Your task to perform on an android device: Empty the shopping cart on target.com. Image 0: 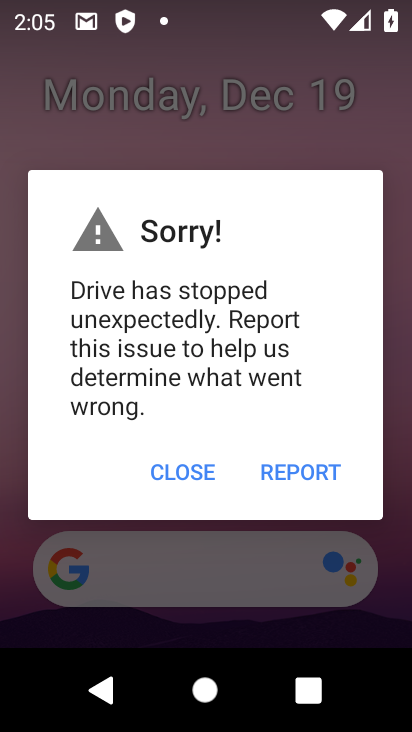
Step 0: task complete